Your task to perform on an android device: What's on the menu at Panera? Image 0: 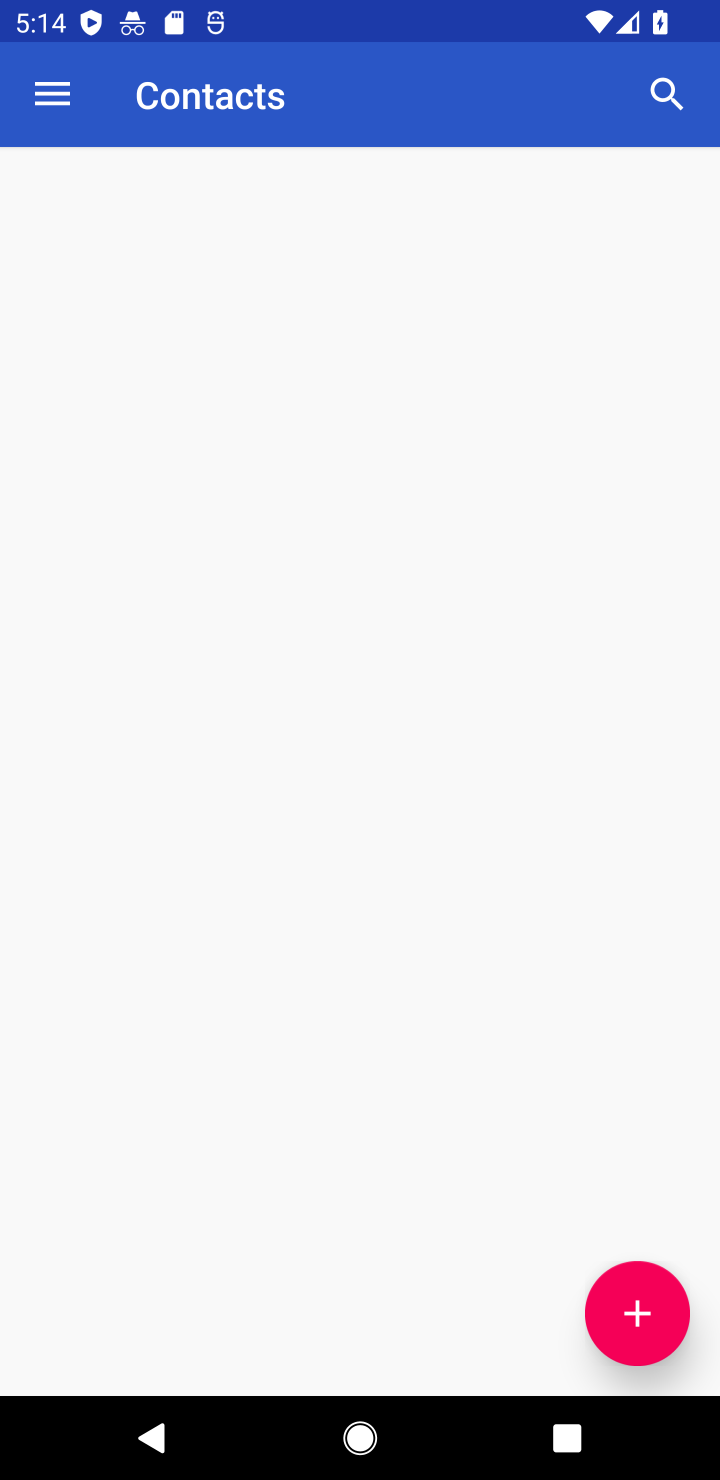
Step 0: press home button
Your task to perform on an android device: What's on the menu at Panera? Image 1: 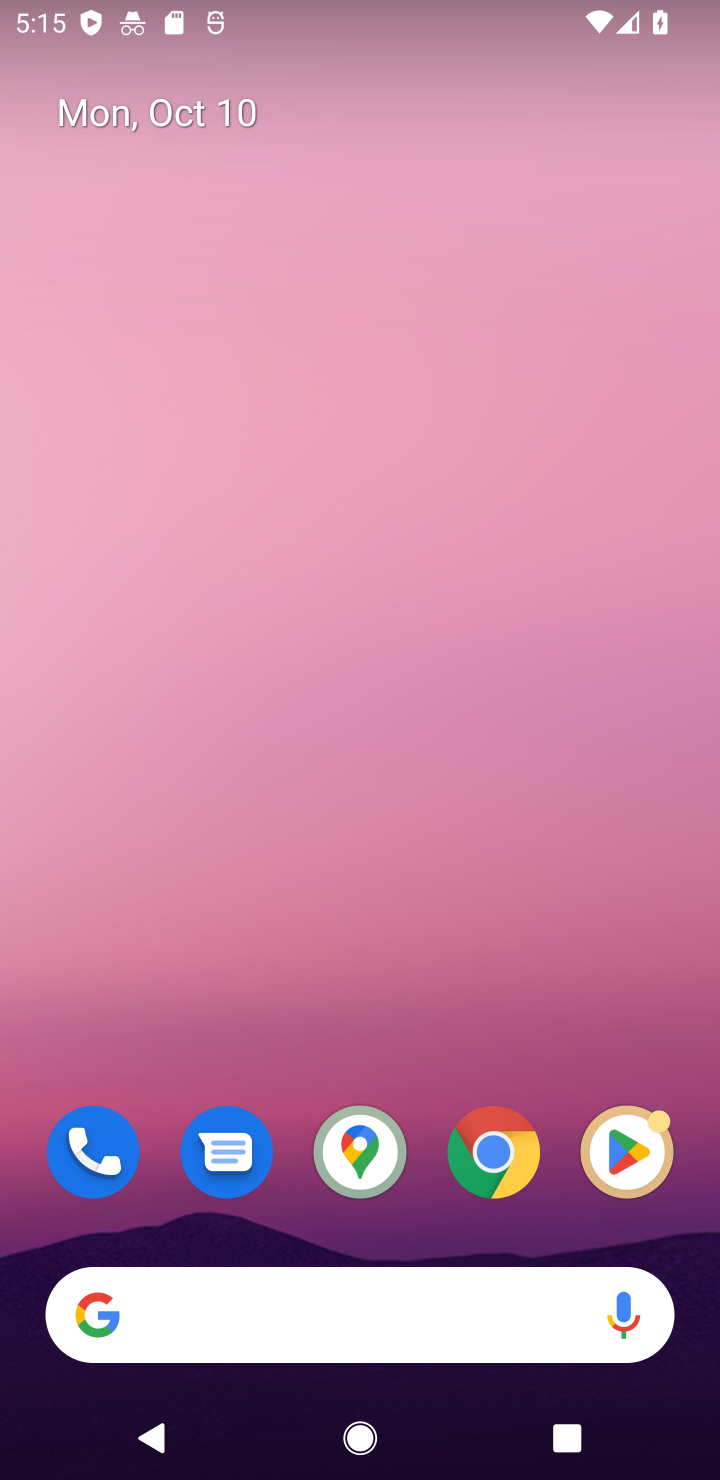
Step 1: click (490, 1159)
Your task to perform on an android device: What's on the menu at Panera? Image 2: 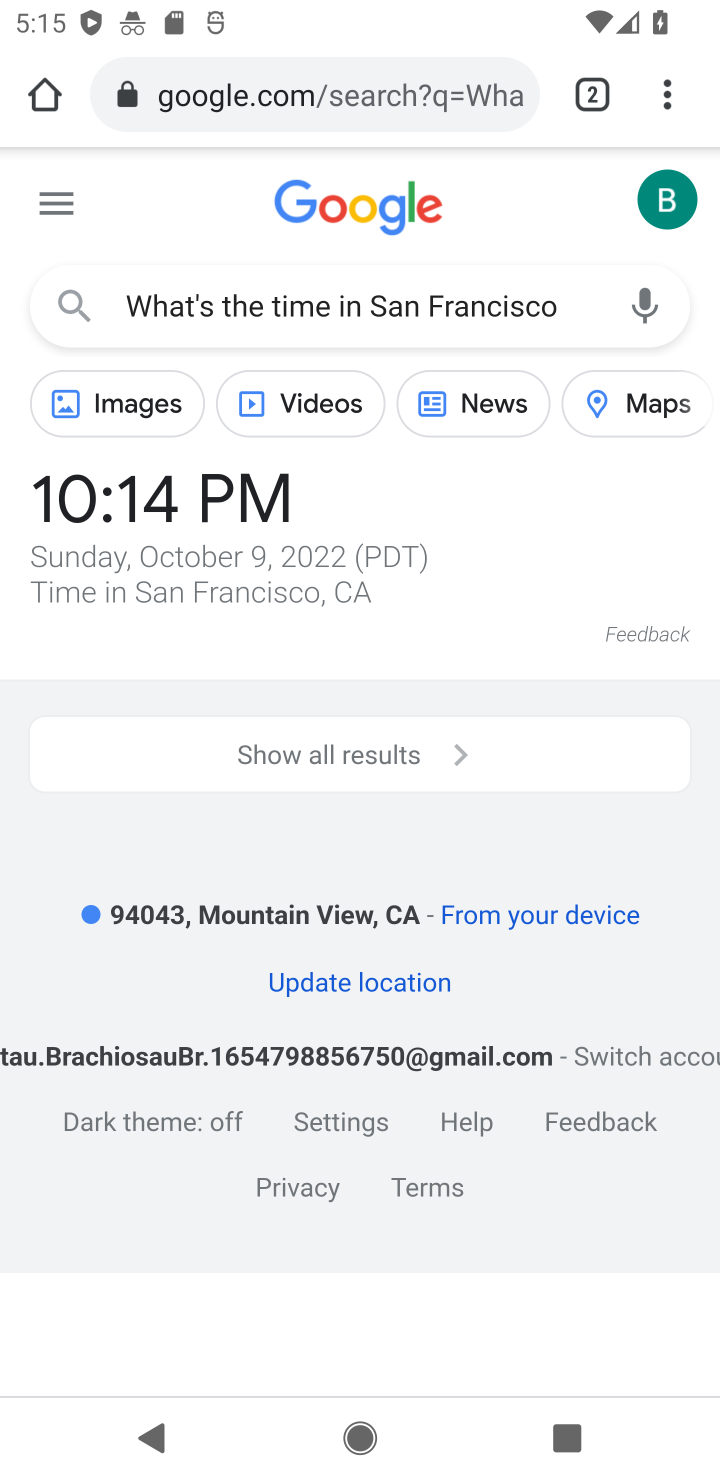
Step 2: click (408, 75)
Your task to perform on an android device: What's on the menu at Panera? Image 3: 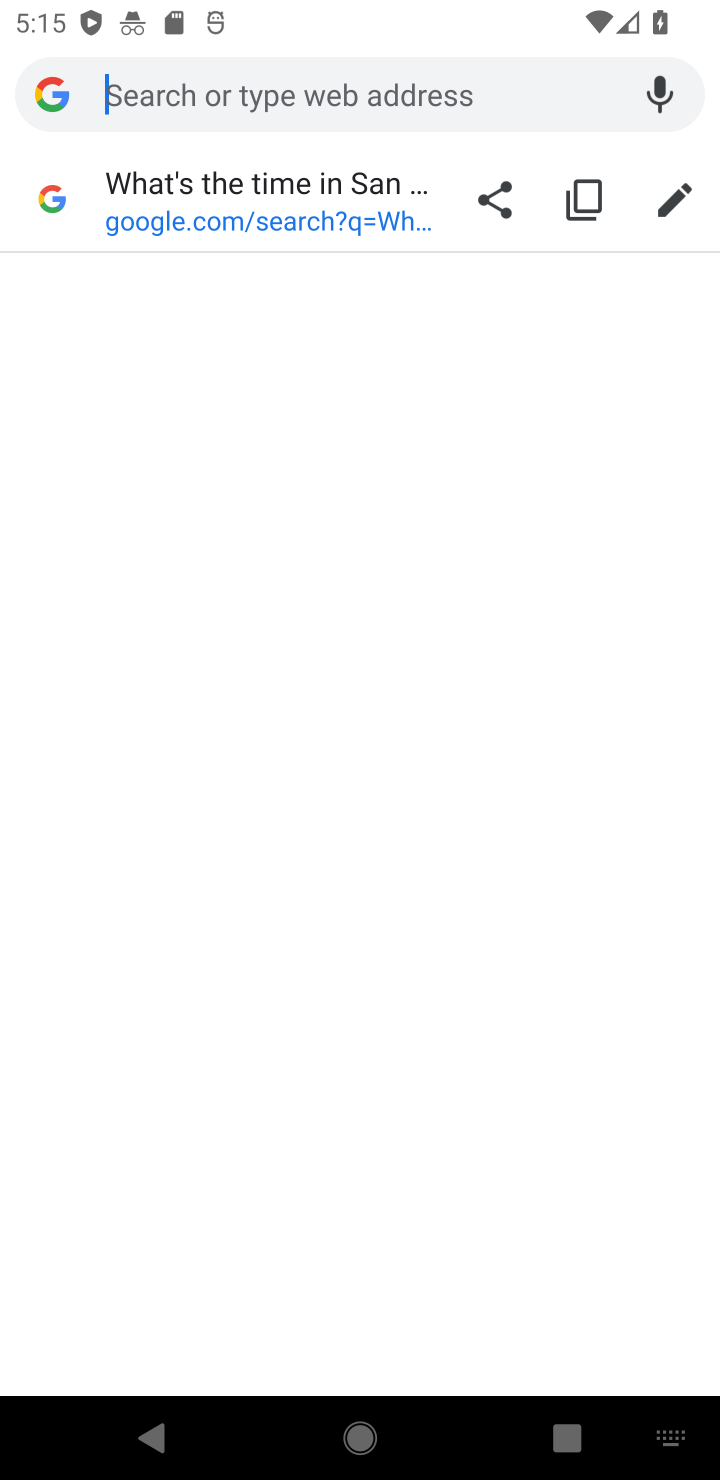
Step 3: type "What's on the menu at Panera"
Your task to perform on an android device: What's on the menu at Panera? Image 4: 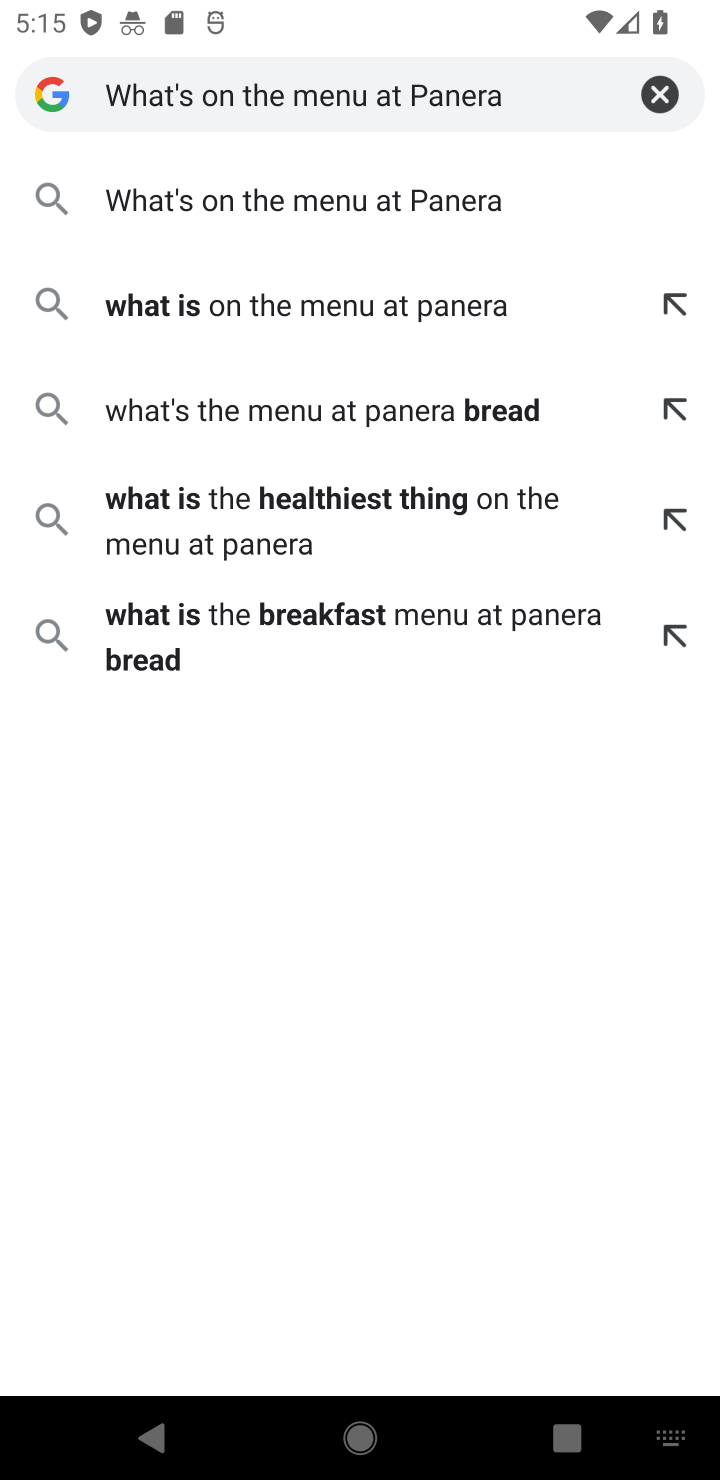
Step 4: click (378, 197)
Your task to perform on an android device: What's on the menu at Panera? Image 5: 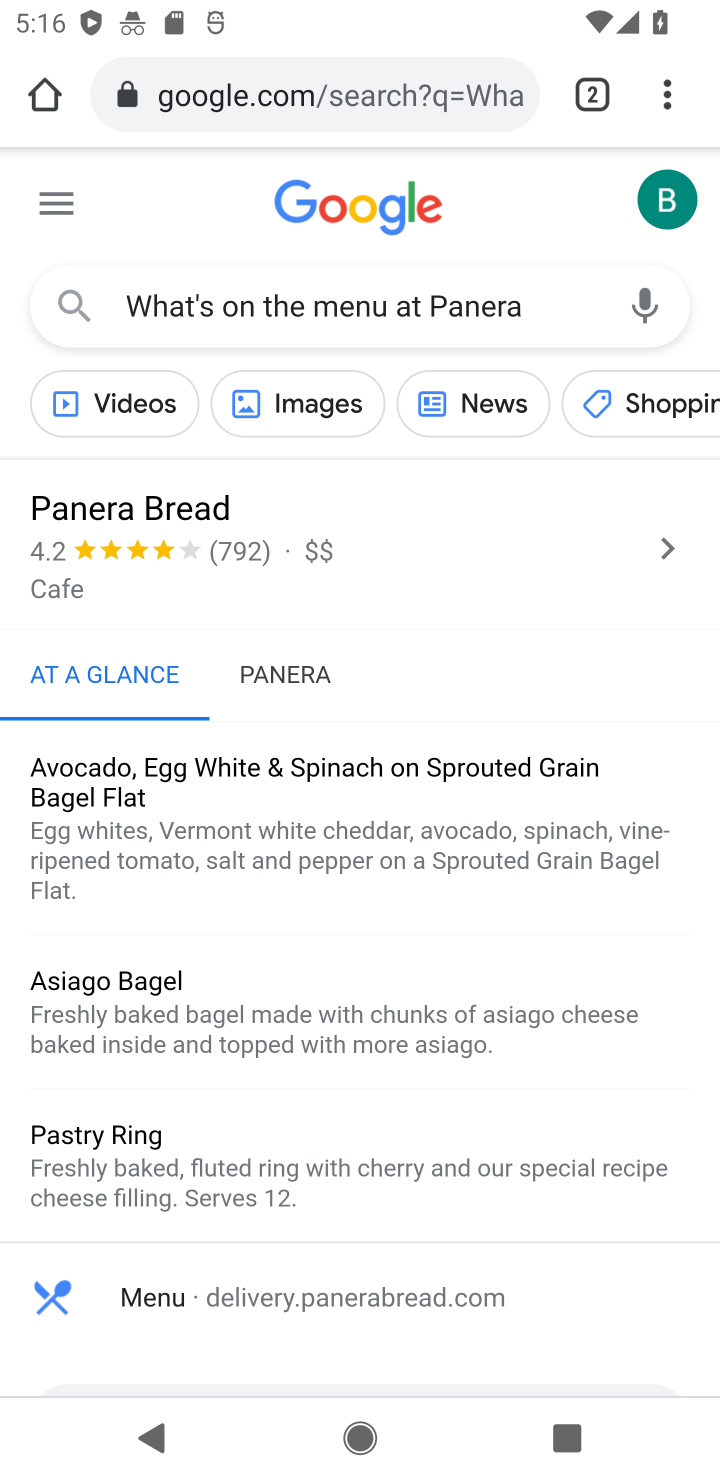
Step 5: task complete